Your task to perform on an android device: Open Chrome and go to settings Image 0: 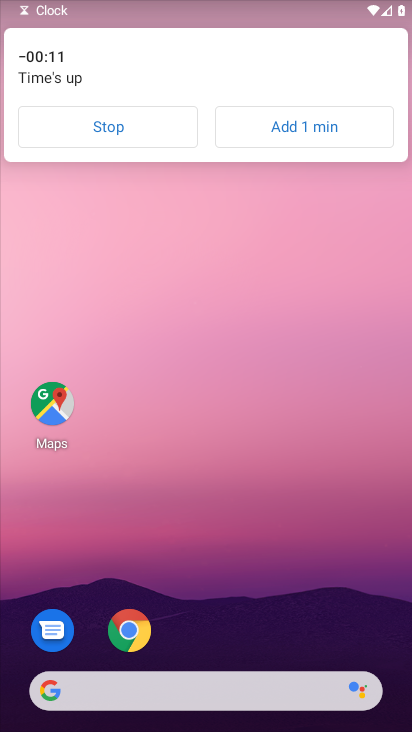
Step 0: click (135, 129)
Your task to perform on an android device: Open Chrome and go to settings Image 1: 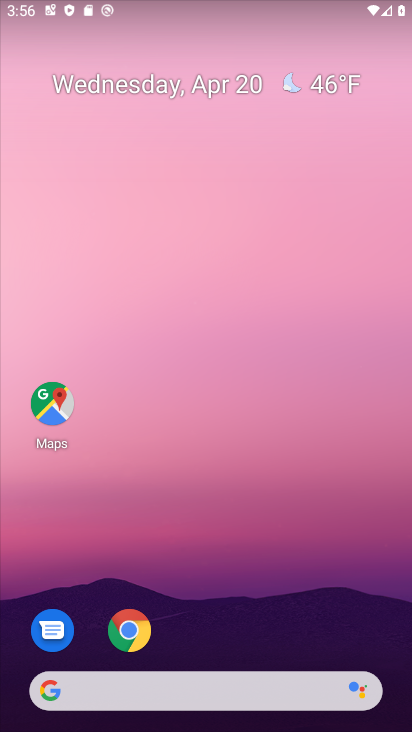
Step 1: click (132, 627)
Your task to perform on an android device: Open Chrome and go to settings Image 2: 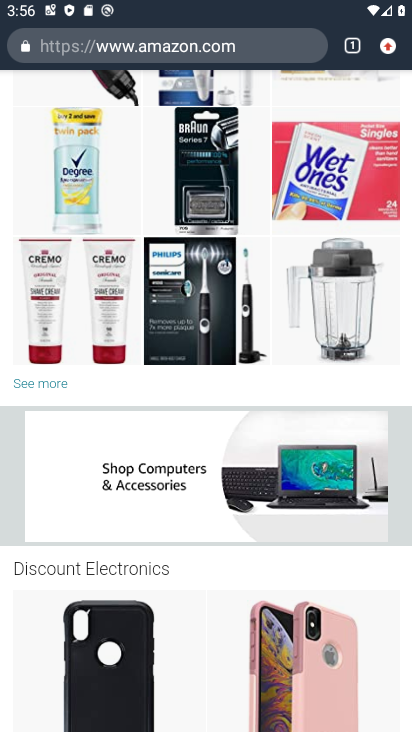
Step 2: click (353, 58)
Your task to perform on an android device: Open Chrome and go to settings Image 3: 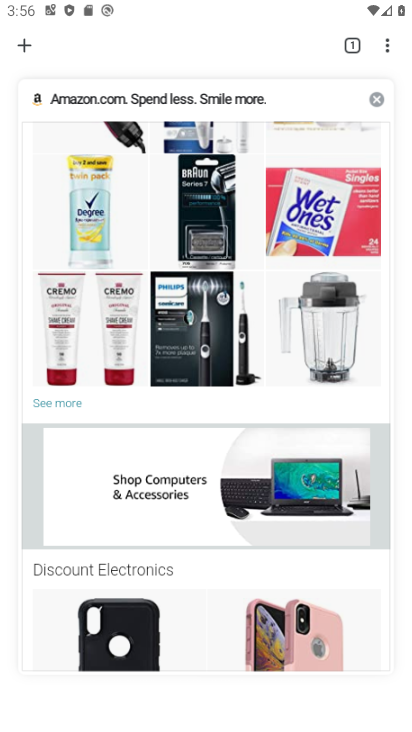
Step 3: click (376, 104)
Your task to perform on an android device: Open Chrome and go to settings Image 4: 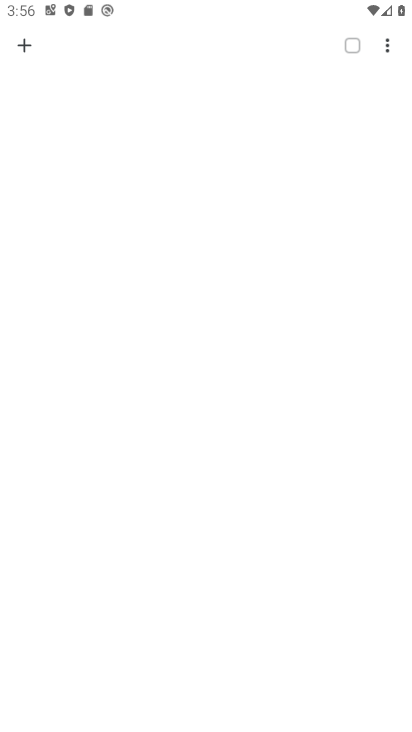
Step 4: click (26, 52)
Your task to perform on an android device: Open Chrome and go to settings Image 5: 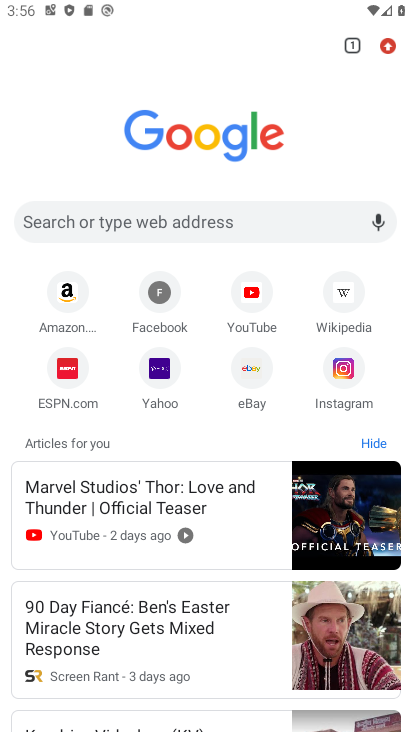
Step 5: click (391, 51)
Your task to perform on an android device: Open Chrome and go to settings Image 6: 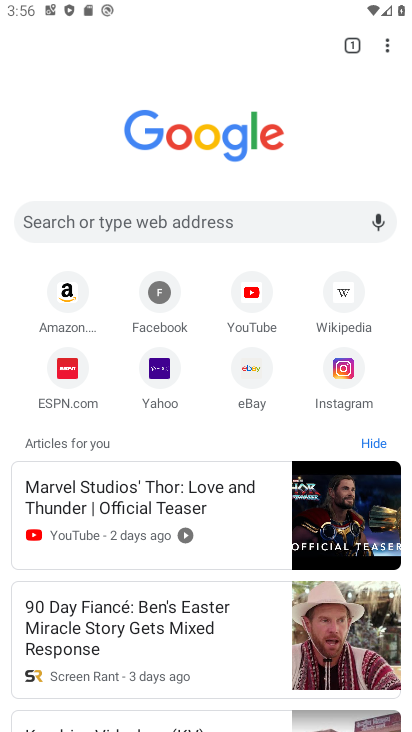
Step 6: click (386, 48)
Your task to perform on an android device: Open Chrome and go to settings Image 7: 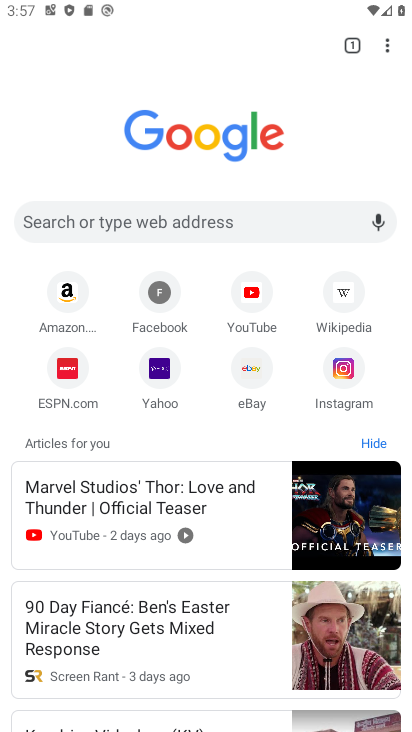
Step 7: click (389, 44)
Your task to perform on an android device: Open Chrome and go to settings Image 8: 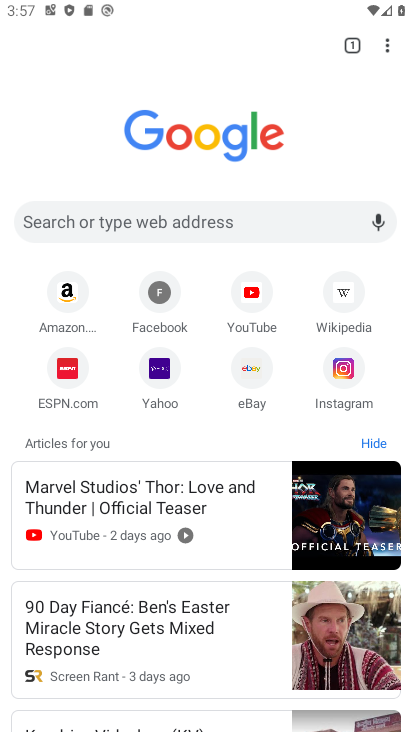
Step 8: click (389, 44)
Your task to perform on an android device: Open Chrome and go to settings Image 9: 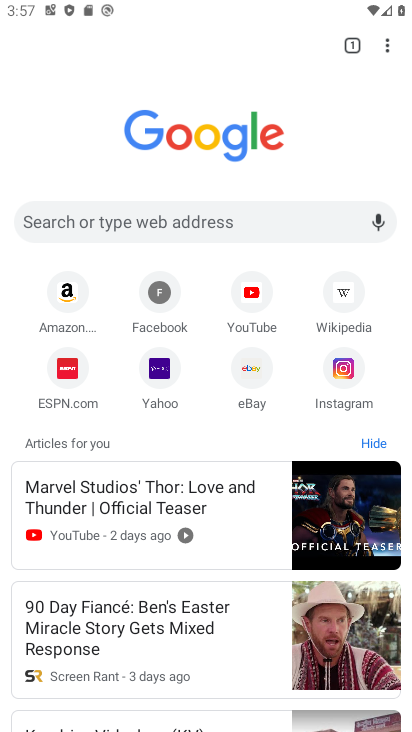
Step 9: click (389, 44)
Your task to perform on an android device: Open Chrome and go to settings Image 10: 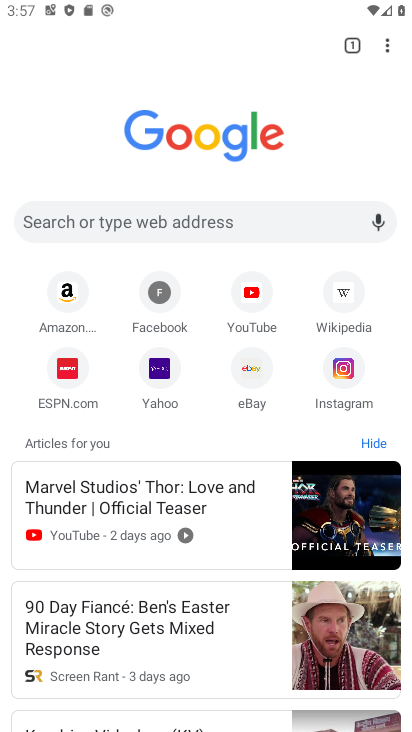
Step 10: click (389, 46)
Your task to perform on an android device: Open Chrome and go to settings Image 11: 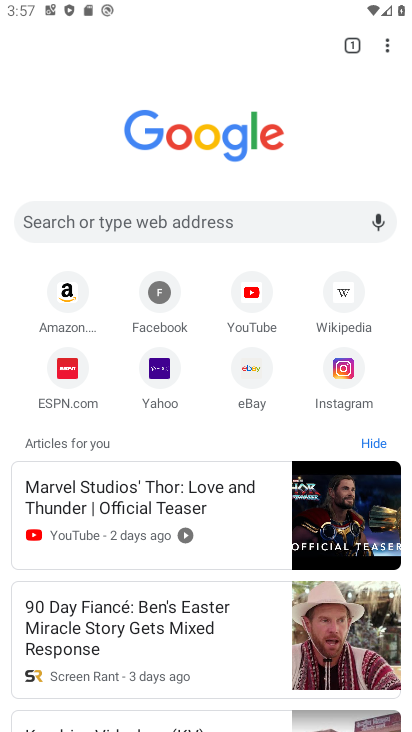
Step 11: click (389, 46)
Your task to perform on an android device: Open Chrome and go to settings Image 12: 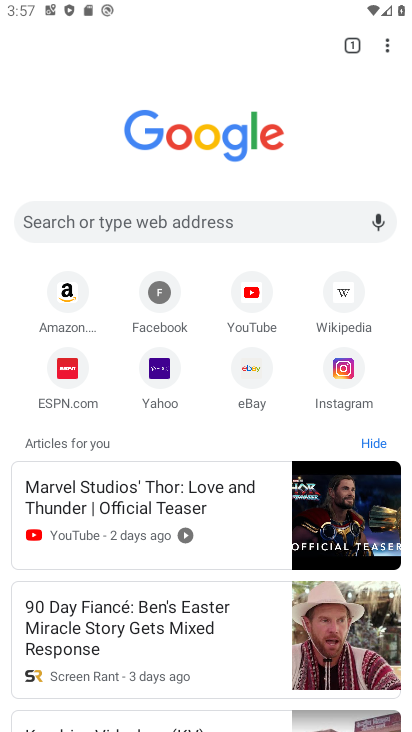
Step 12: click (389, 44)
Your task to perform on an android device: Open Chrome and go to settings Image 13: 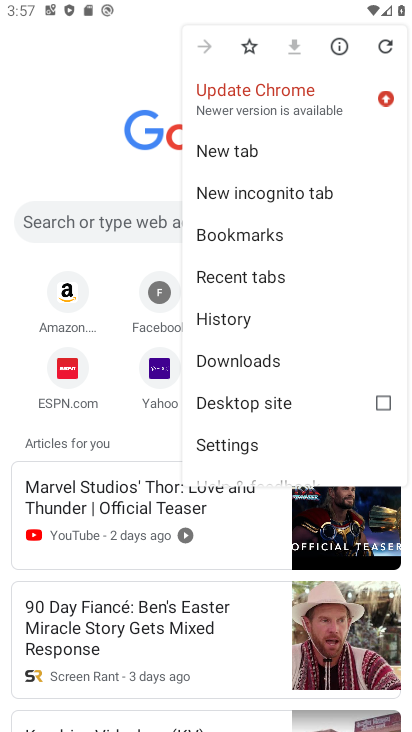
Step 13: click (238, 445)
Your task to perform on an android device: Open Chrome and go to settings Image 14: 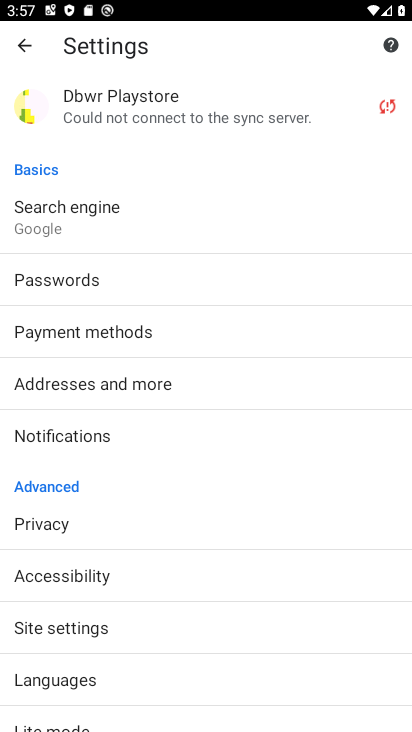
Step 14: task complete